Your task to perform on an android device: Set the phone to "Do not disturb". Image 0: 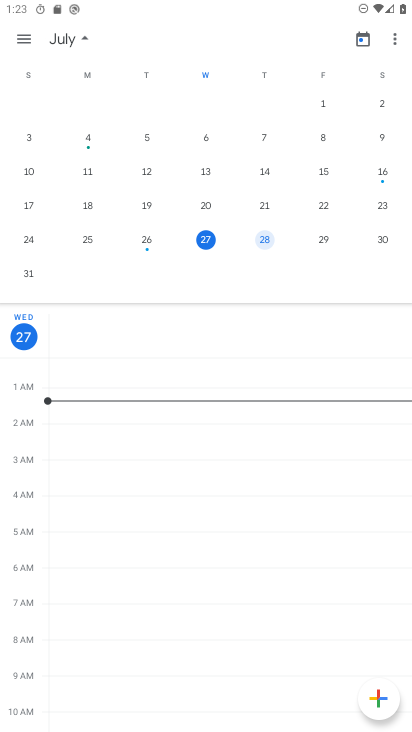
Step 0: drag from (168, 642) to (298, 264)
Your task to perform on an android device: Set the phone to "Do not disturb". Image 1: 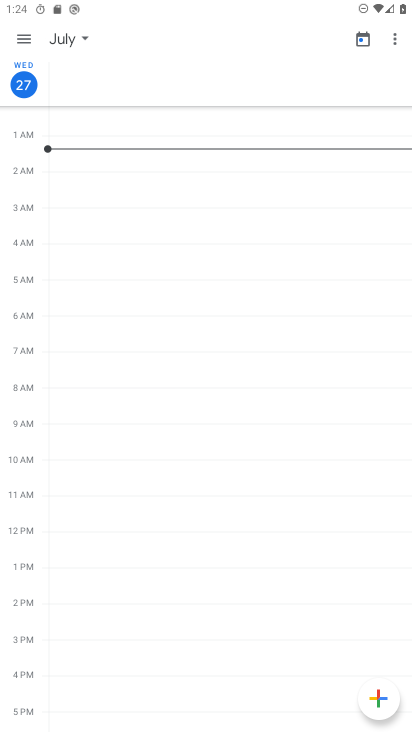
Step 1: press home button
Your task to perform on an android device: Set the phone to "Do not disturb". Image 2: 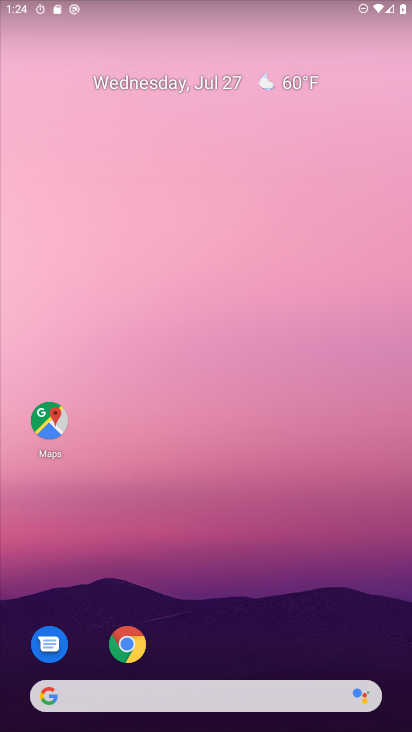
Step 2: drag from (189, 662) to (216, 206)
Your task to perform on an android device: Set the phone to "Do not disturb". Image 3: 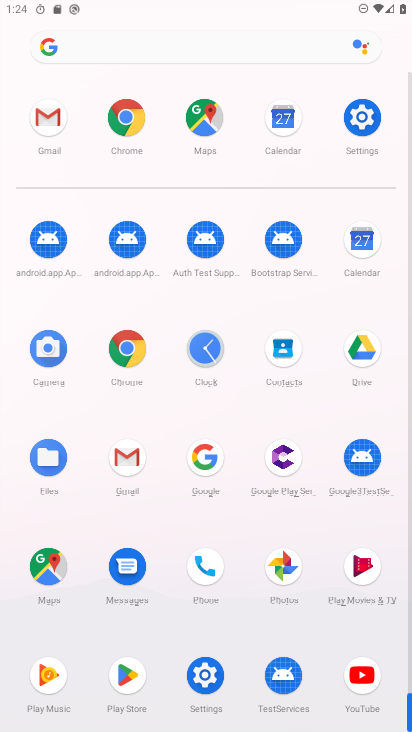
Step 3: click (205, 669)
Your task to perform on an android device: Set the phone to "Do not disturb". Image 4: 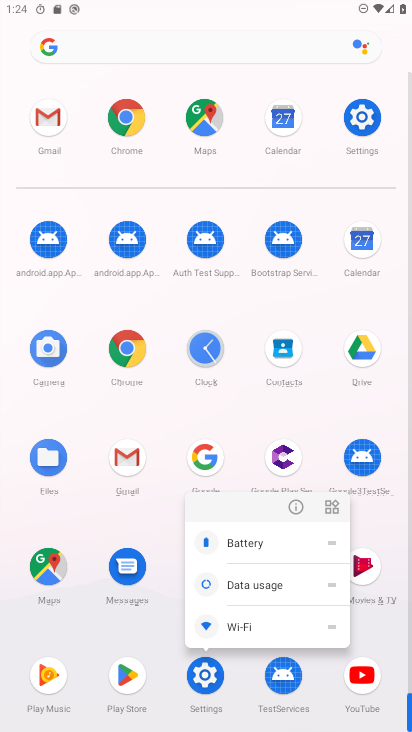
Step 4: click (296, 504)
Your task to perform on an android device: Set the phone to "Do not disturb". Image 5: 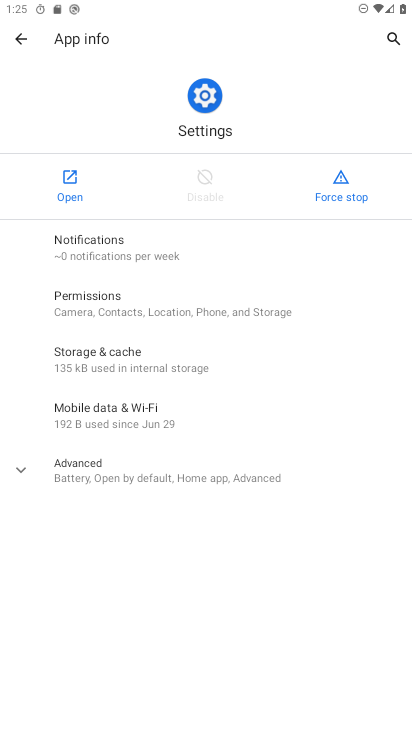
Step 5: click (70, 198)
Your task to perform on an android device: Set the phone to "Do not disturb". Image 6: 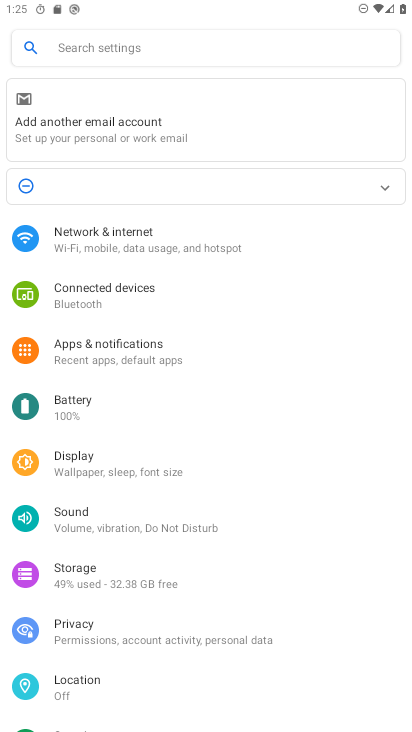
Step 6: click (111, 344)
Your task to perform on an android device: Set the phone to "Do not disturb". Image 7: 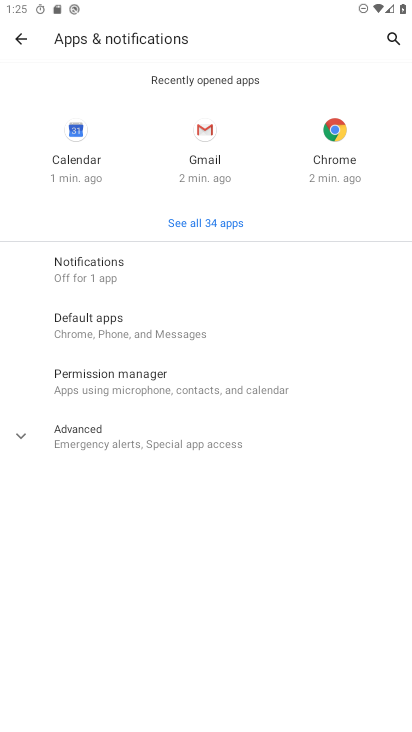
Step 7: click (162, 281)
Your task to perform on an android device: Set the phone to "Do not disturb". Image 8: 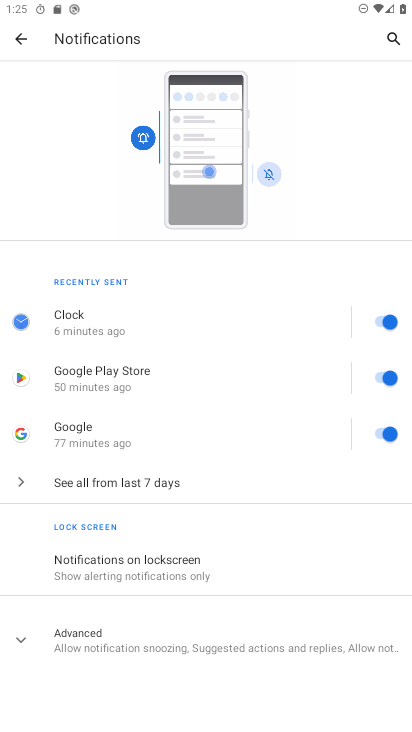
Step 8: click (62, 661)
Your task to perform on an android device: Set the phone to "Do not disturb". Image 9: 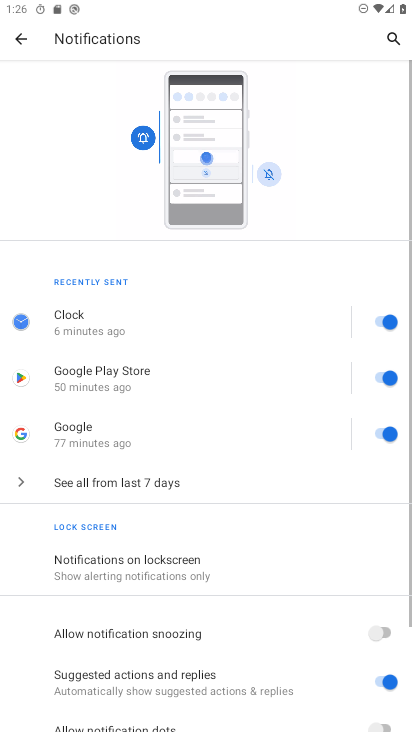
Step 9: drag from (182, 603) to (257, 138)
Your task to perform on an android device: Set the phone to "Do not disturb". Image 10: 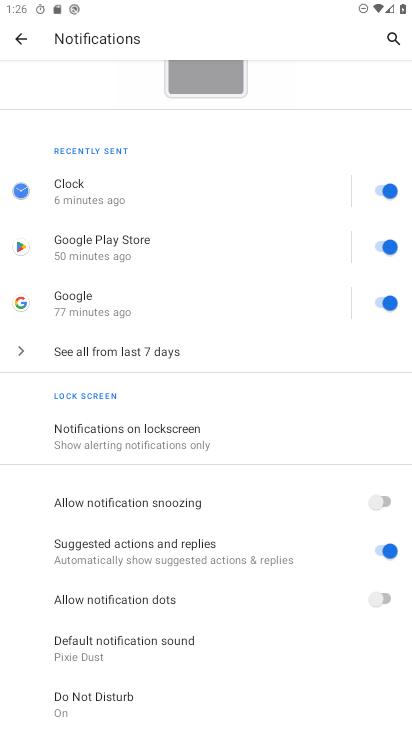
Step 10: click (241, 605)
Your task to perform on an android device: Set the phone to "Do not disturb". Image 11: 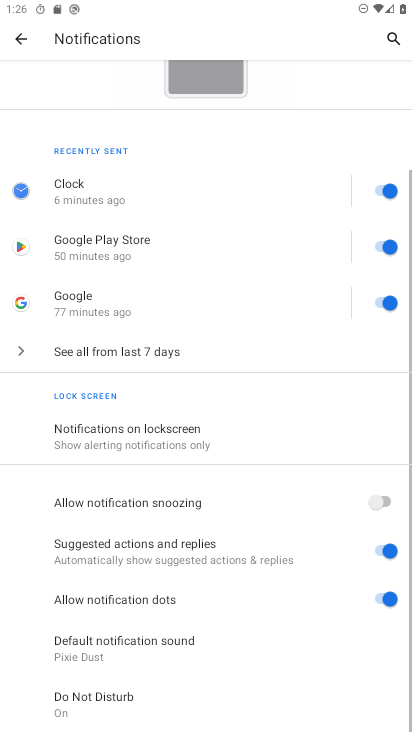
Step 11: click (240, 604)
Your task to perform on an android device: Set the phone to "Do not disturb". Image 12: 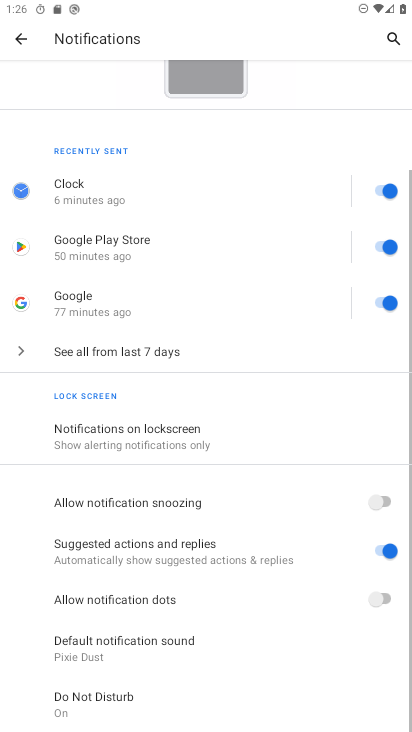
Step 12: click (64, 711)
Your task to perform on an android device: Set the phone to "Do not disturb". Image 13: 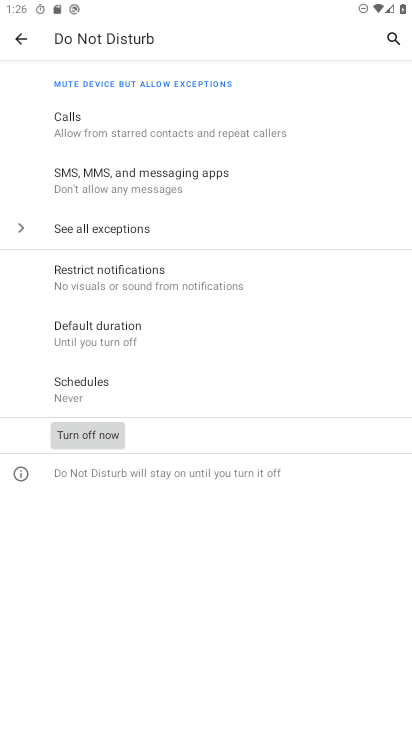
Step 13: task complete